Your task to perform on an android device: Go to network settings Image 0: 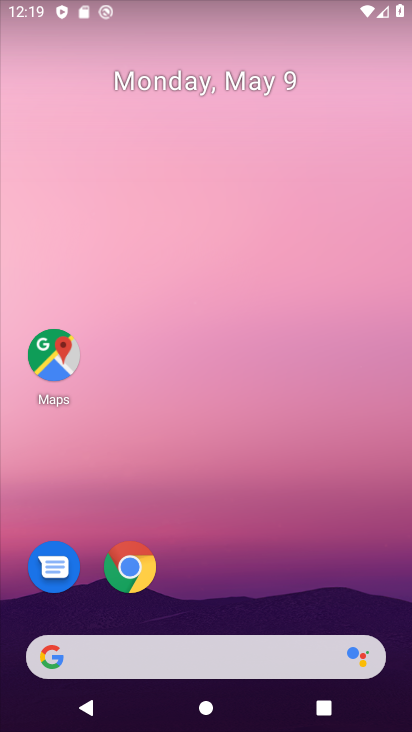
Step 0: drag from (256, 598) to (326, 14)
Your task to perform on an android device: Go to network settings Image 1: 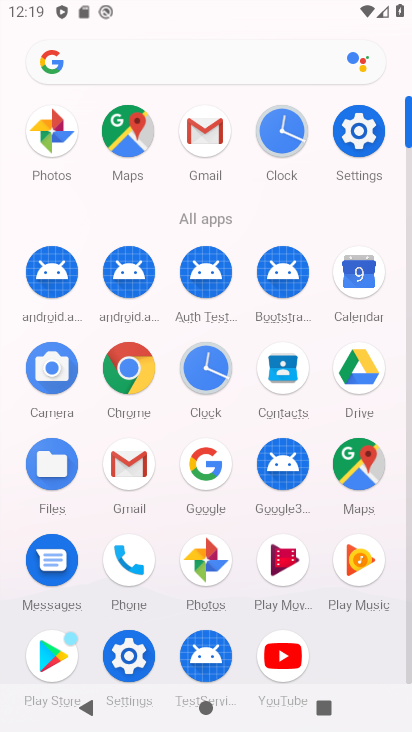
Step 1: click (353, 154)
Your task to perform on an android device: Go to network settings Image 2: 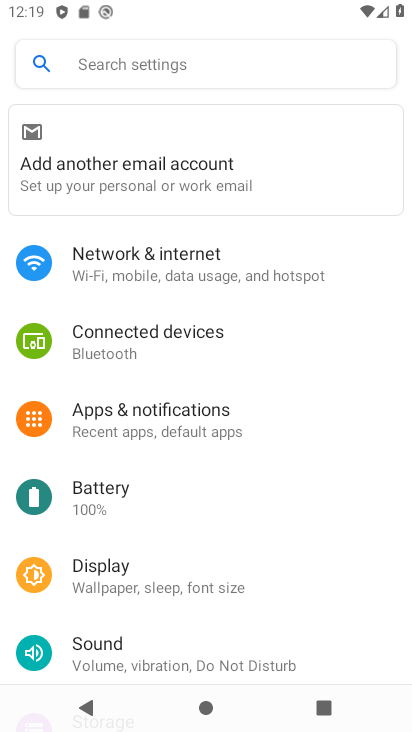
Step 2: click (209, 281)
Your task to perform on an android device: Go to network settings Image 3: 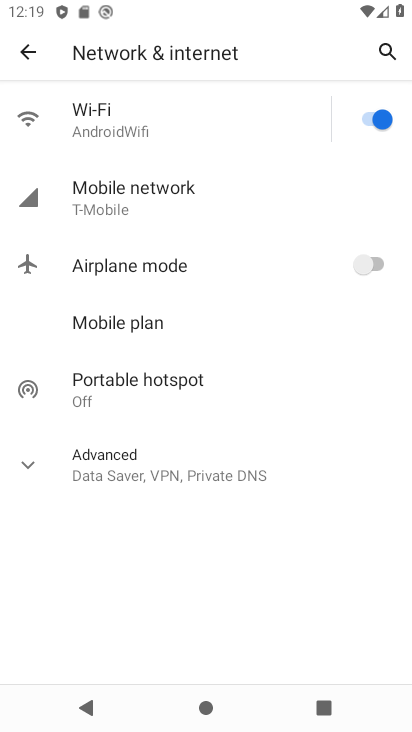
Step 3: task complete